Your task to perform on an android device: Go to notification settings Image 0: 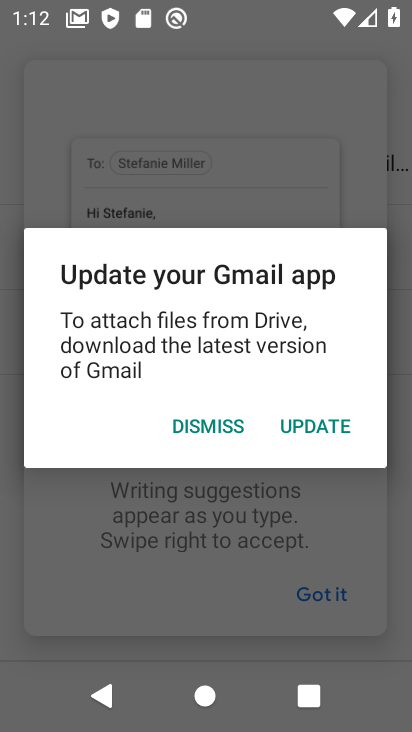
Step 0: press home button
Your task to perform on an android device: Go to notification settings Image 1: 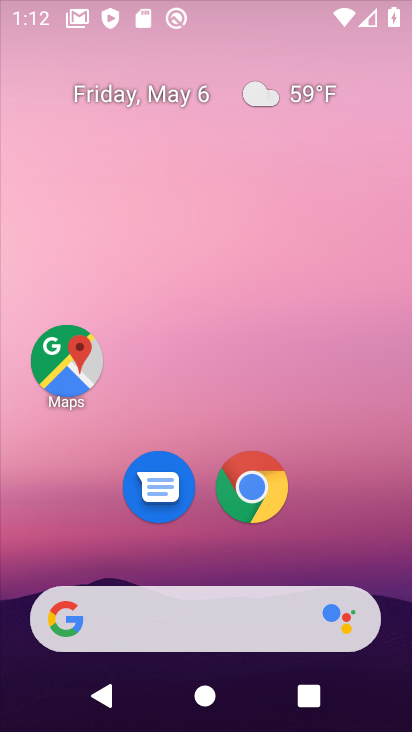
Step 1: drag from (241, 496) to (350, 18)
Your task to perform on an android device: Go to notification settings Image 2: 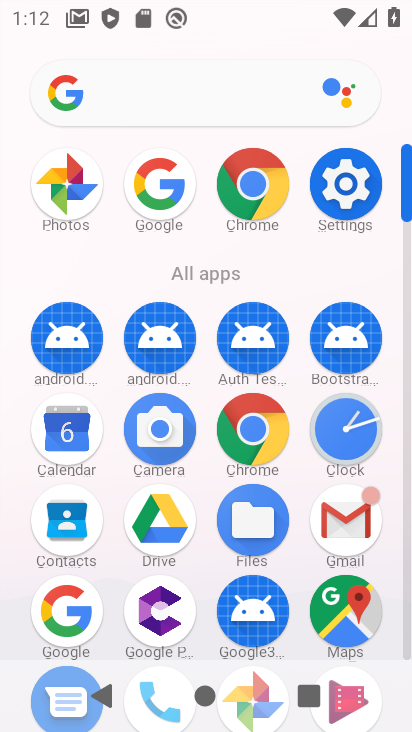
Step 2: click (346, 176)
Your task to perform on an android device: Go to notification settings Image 3: 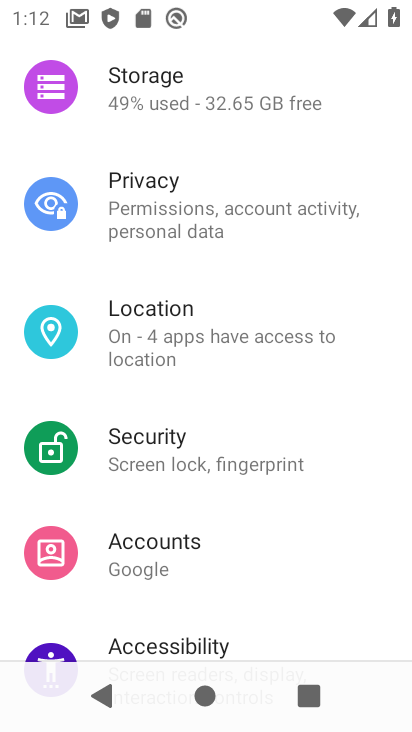
Step 3: drag from (230, 292) to (179, 722)
Your task to perform on an android device: Go to notification settings Image 4: 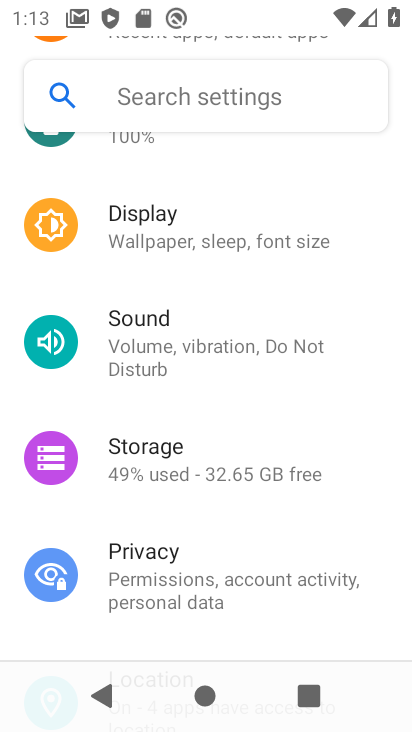
Step 4: drag from (196, 393) to (207, 692)
Your task to perform on an android device: Go to notification settings Image 5: 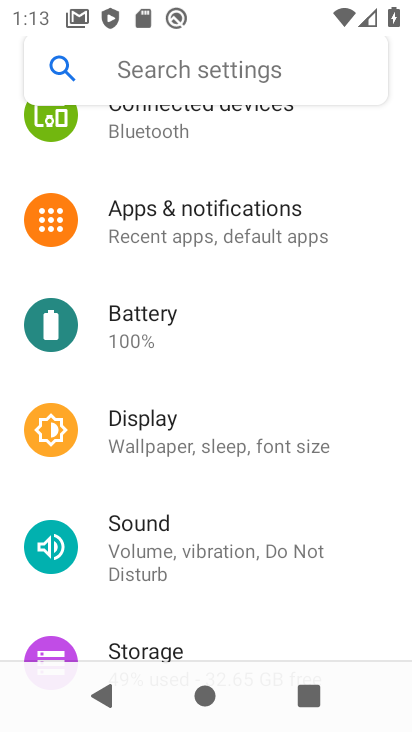
Step 5: click (212, 251)
Your task to perform on an android device: Go to notification settings Image 6: 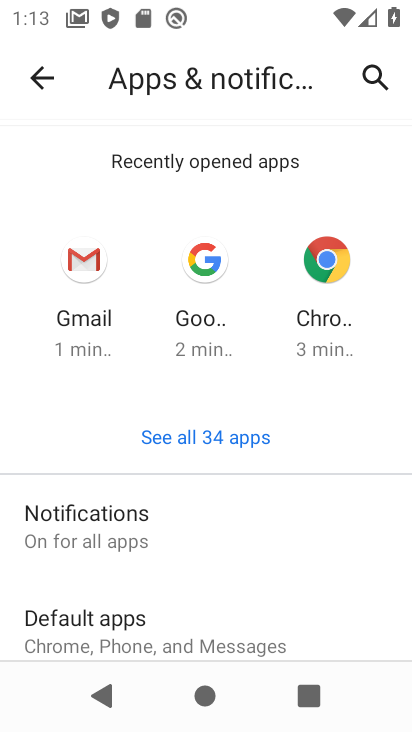
Step 6: task complete